Your task to perform on an android device: When is my next appointment? Image 0: 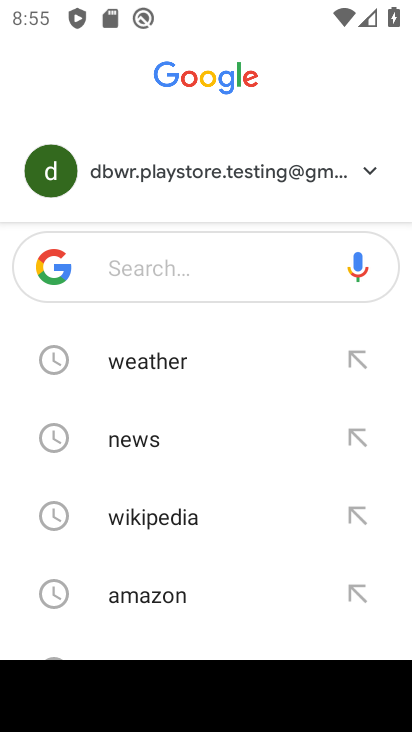
Step 0: press home button
Your task to perform on an android device: When is my next appointment? Image 1: 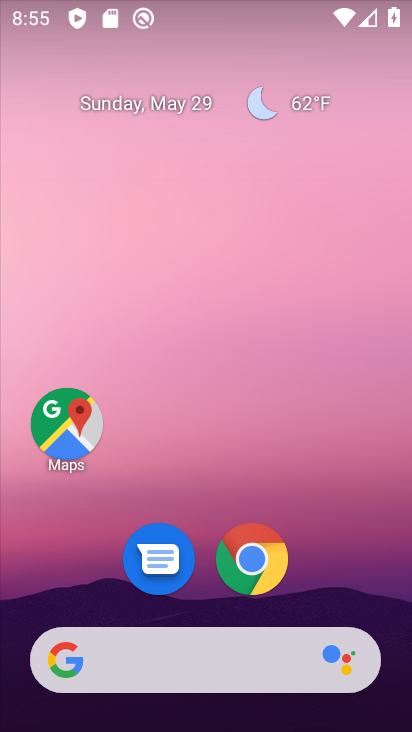
Step 1: drag from (303, 516) to (306, 316)
Your task to perform on an android device: When is my next appointment? Image 2: 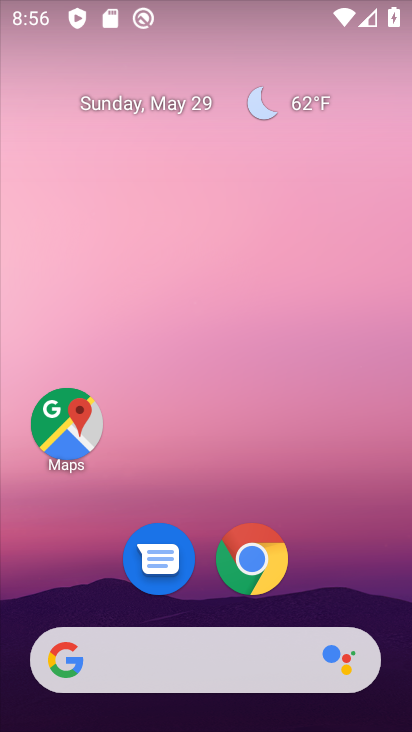
Step 2: drag from (319, 612) to (296, 269)
Your task to perform on an android device: When is my next appointment? Image 3: 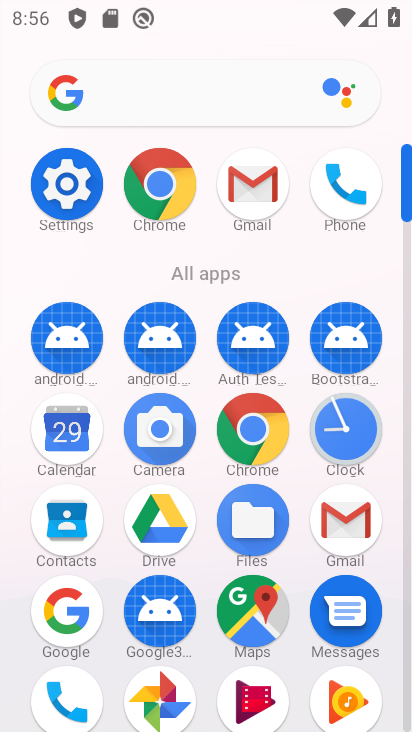
Step 3: click (55, 441)
Your task to perform on an android device: When is my next appointment? Image 4: 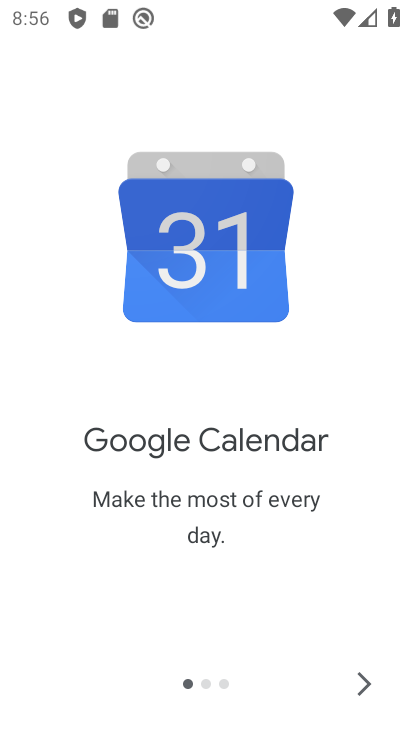
Step 4: click (355, 689)
Your task to perform on an android device: When is my next appointment? Image 5: 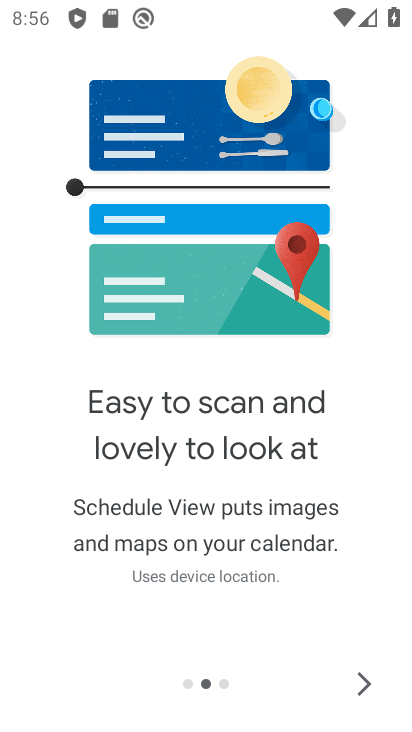
Step 5: click (354, 688)
Your task to perform on an android device: When is my next appointment? Image 6: 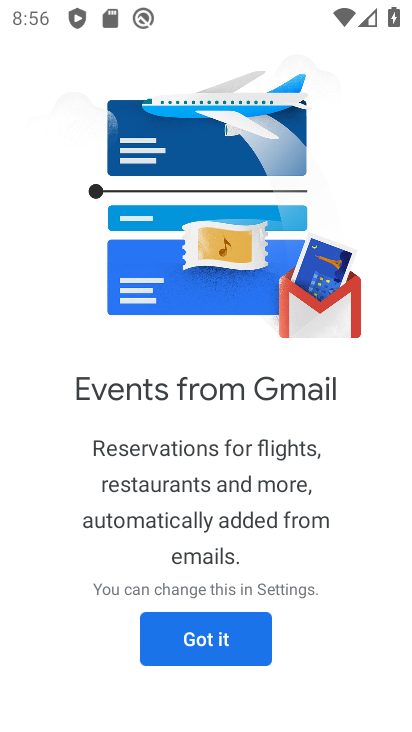
Step 6: click (223, 609)
Your task to perform on an android device: When is my next appointment? Image 7: 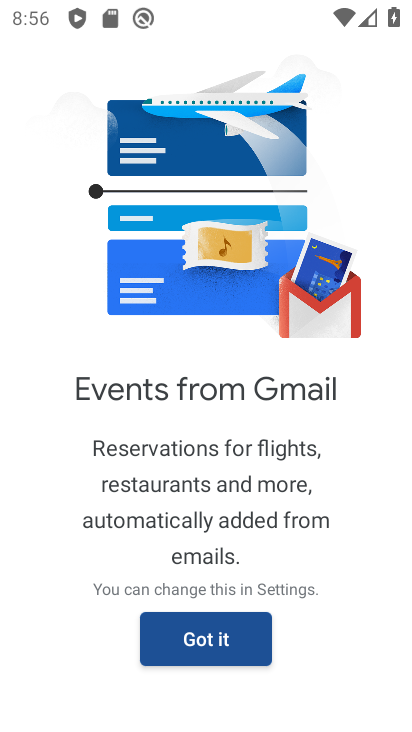
Step 7: click (217, 619)
Your task to perform on an android device: When is my next appointment? Image 8: 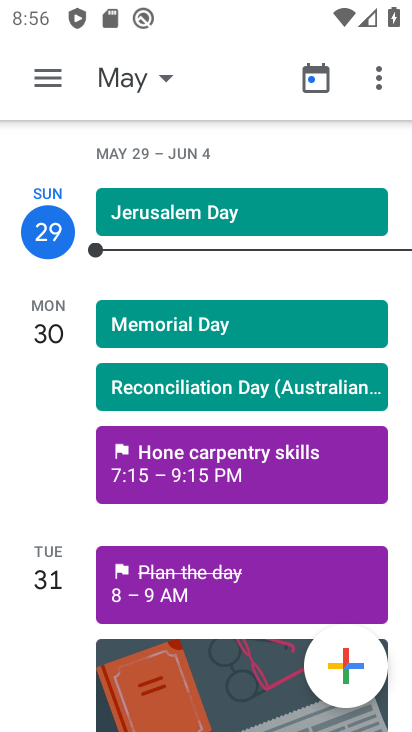
Step 8: task complete